Your task to perform on an android device: change the clock display to digital Image 0: 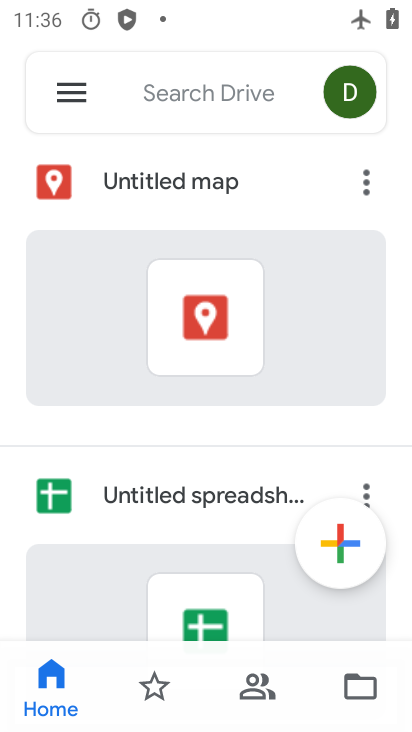
Step 0: press home button
Your task to perform on an android device: change the clock display to digital Image 1: 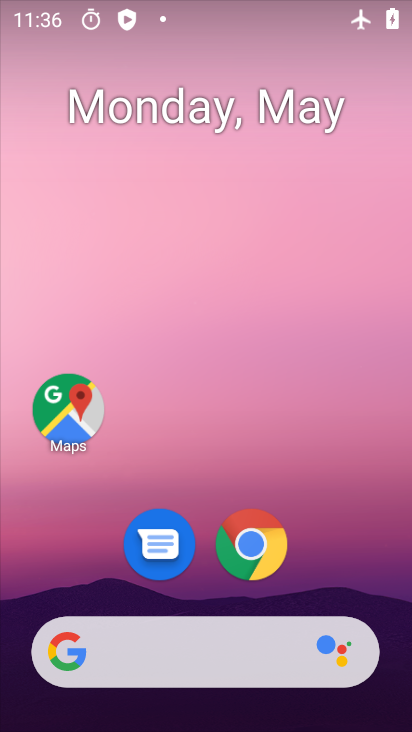
Step 1: drag from (348, 548) to (274, 66)
Your task to perform on an android device: change the clock display to digital Image 2: 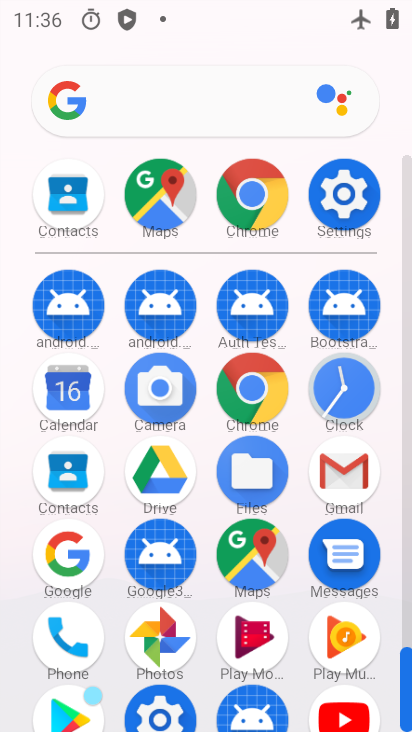
Step 2: click (336, 412)
Your task to perform on an android device: change the clock display to digital Image 3: 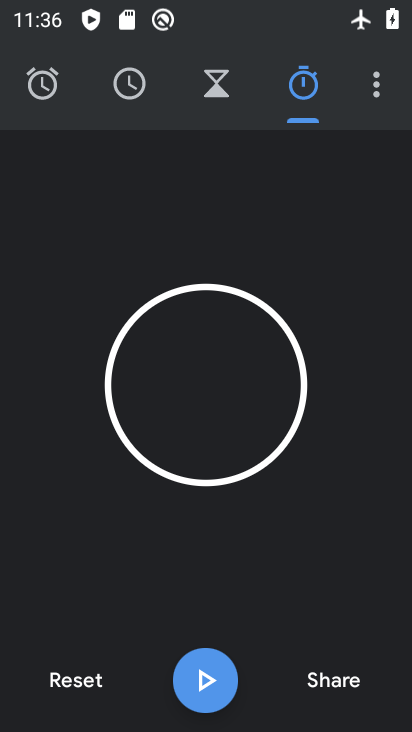
Step 3: click (371, 93)
Your task to perform on an android device: change the clock display to digital Image 4: 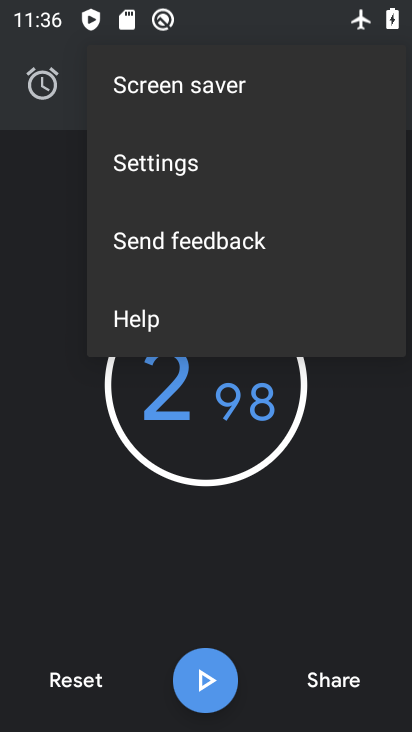
Step 4: click (122, 169)
Your task to perform on an android device: change the clock display to digital Image 5: 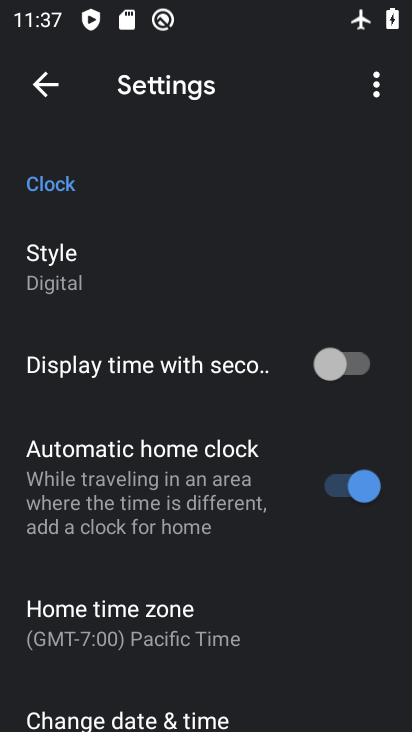
Step 5: task complete